Your task to perform on an android device: Open the calendar app, open the side menu, and click the "Day" option Image 0: 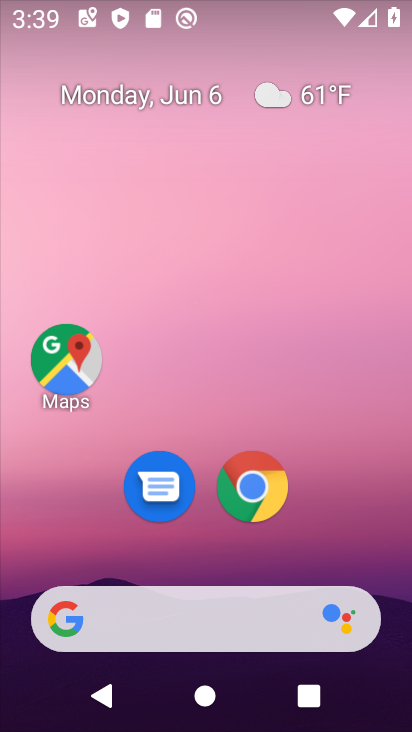
Step 0: drag from (337, 516) to (251, 94)
Your task to perform on an android device: Open the calendar app, open the side menu, and click the "Day" option Image 1: 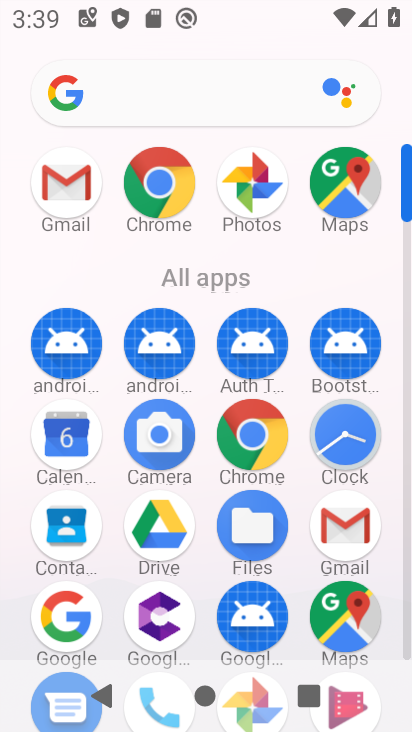
Step 1: click (71, 432)
Your task to perform on an android device: Open the calendar app, open the side menu, and click the "Day" option Image 2: 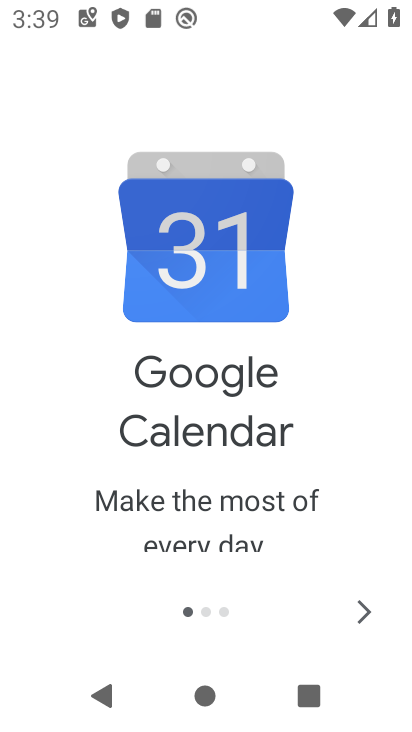
Step 2: click (365, 621)
Your task to perform on an android device: Open the calendar app, open the side menu, and click the "Day" option Image 3: 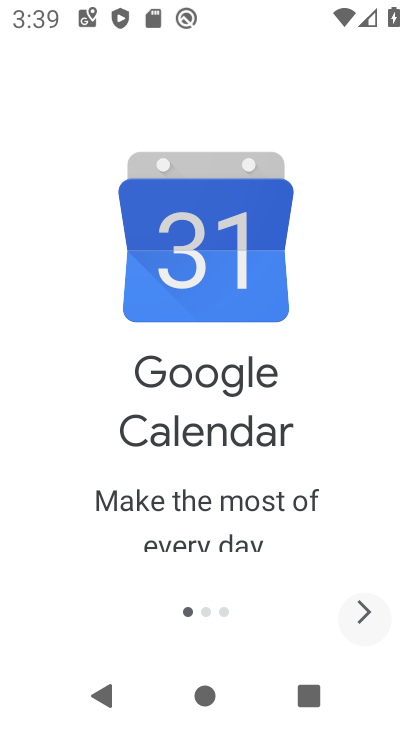
Step 3: click (365, 621)
Your task to perform on an android device: Open the calendar app, open the side menu, and click the "Day" option Image 4: 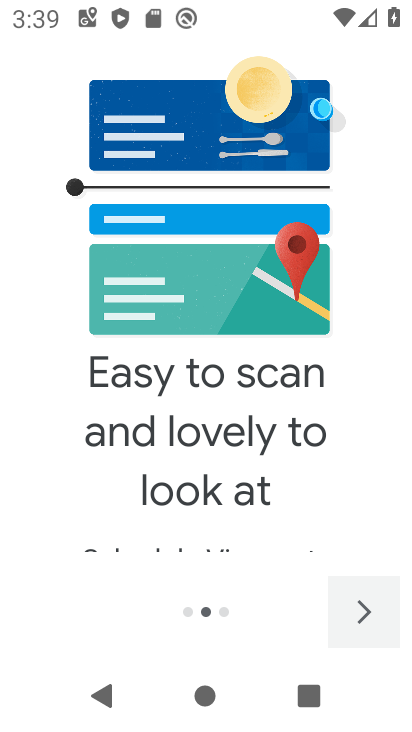
Step 4: click (365, 621)
Your task to perform on an android device: Open the calendar app, open the side menu, and click the "Day" option Image 5: 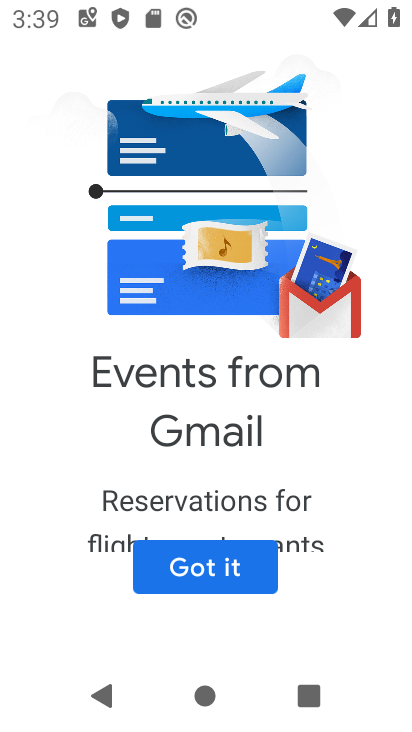
Step 5: click (191, 570)
Your task to perform on an android device: Open the calendar app, open the side menu, and click the "Day" option Image 6: 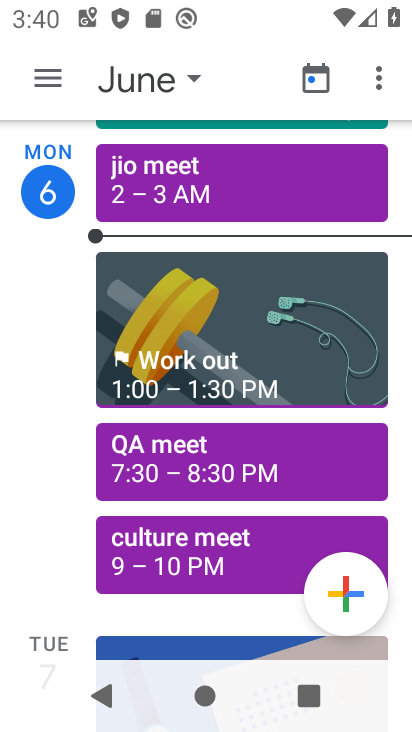
Step 6: click (48, 72)
Your task to perform on an android device: Open the calendar app, open the side menu, and click the "Day" option Image 7: 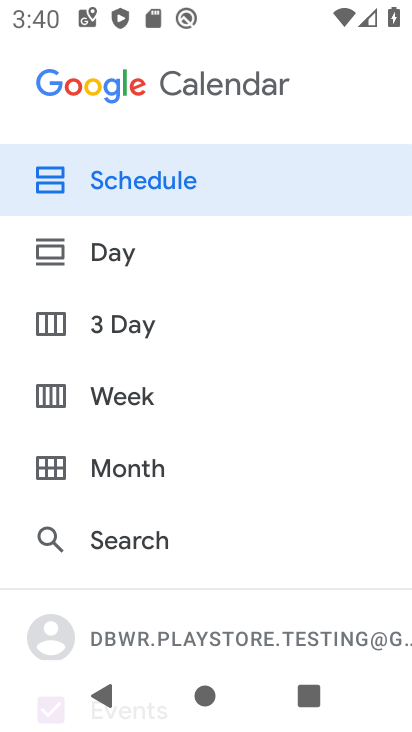
Step 7: click (118, 259)
Your task to perform on an android device: Open the calendar app, open the side menu, and click the "Day" option Image 8: 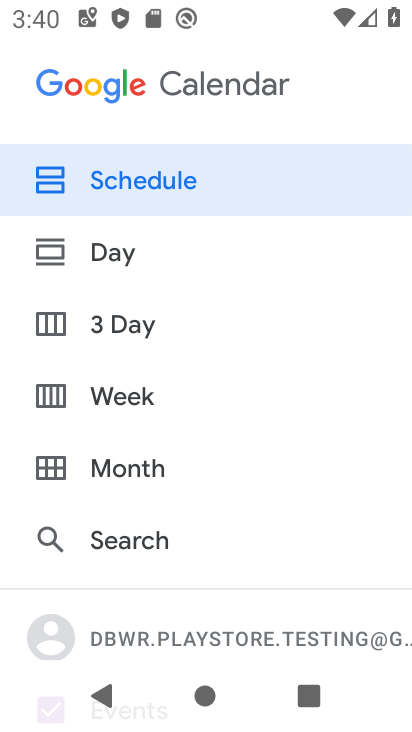
Step 8: click (163, 247)
Your task to perform on an android device: Open the calendar app, open the side menu, and click the "Day" option Image 9: 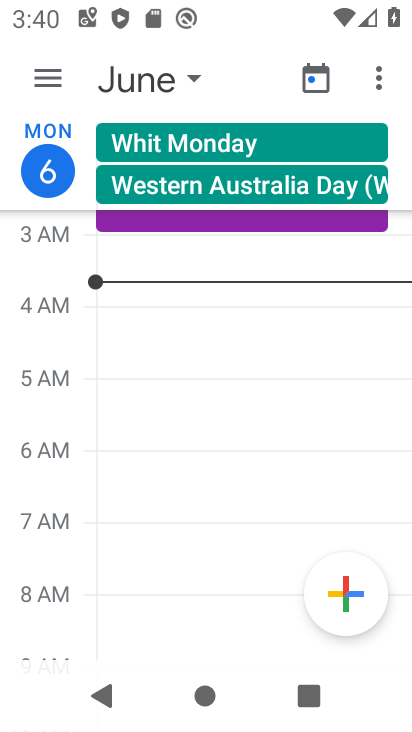
Step 9: task complete